Your task to perform on an android device: open sync settings in chrome Image 0: 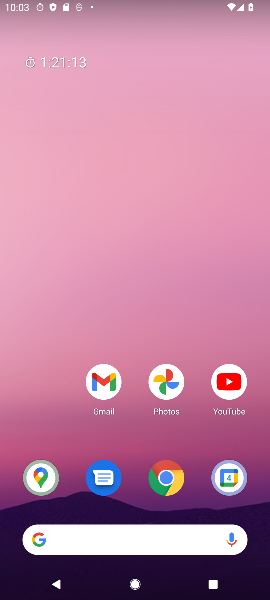
Step 0: drag from (137, 469) to (132, 139)
Your task to perform on an android device: open sync settings in chrome Image 1: 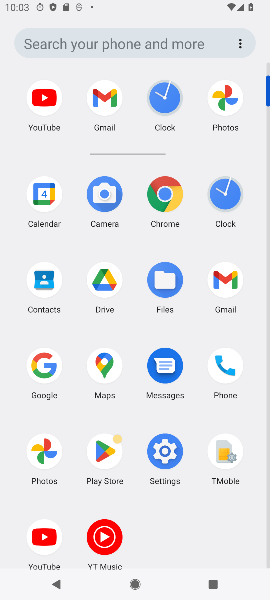
Step 1: click (157, 193)
Your task to perform on an android device: open sync settings in chrome Image 2: 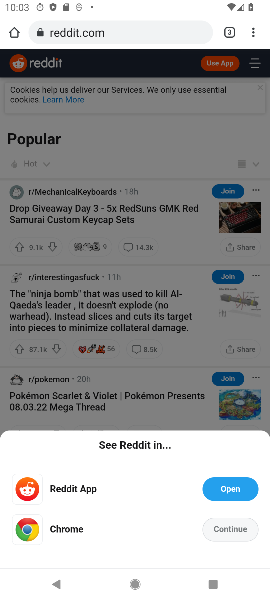
Step 2: drag from (252, 28) to (174, 432)
Your task to perform on an android device: open sync settings in chrome Image 3: 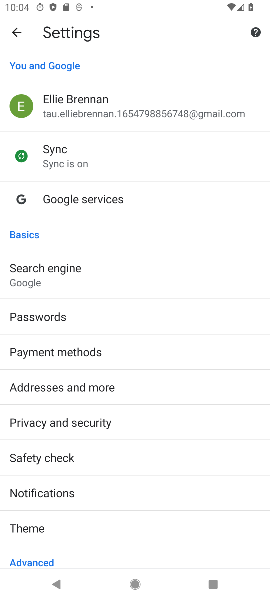
Step 3: click (62, 155)
Your task to perform on an android device: open sync settings in chrome Image 4: 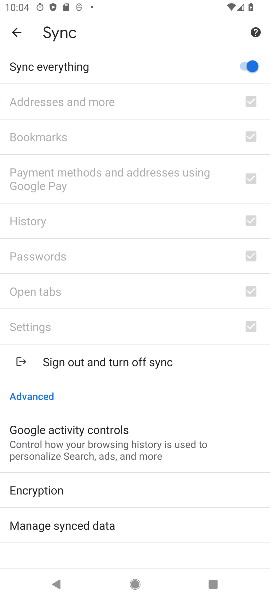
Step 4: task complete